Your task to perform on an android device: Open the phone app and click the voicemail tab. Image 0: 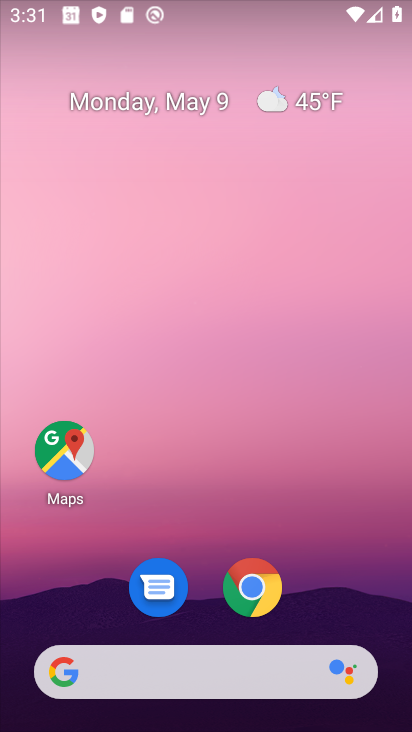
Step 0: drag from (393, 667) to (347, 187)
Your task to perform on an android device: Open the phone app and click the voicemail tab. Image 1: 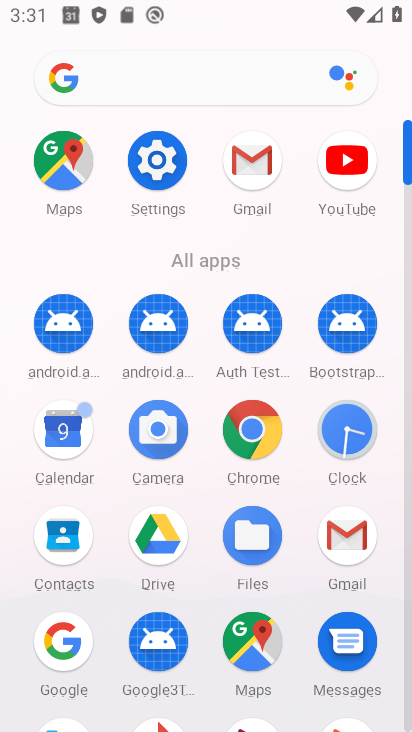
Step 1: drag from (409, 137) to (407, 75)
Your task to perform on an android device: Open the phone app and click the voicemail tab. Image 2: 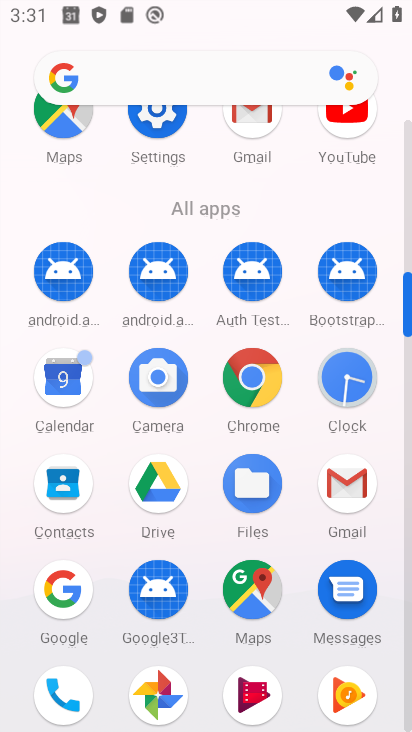
Step 2: click (68, 695)
Your task to perform on an android device: Open the phone app and click the voicemail tab. Image 3: 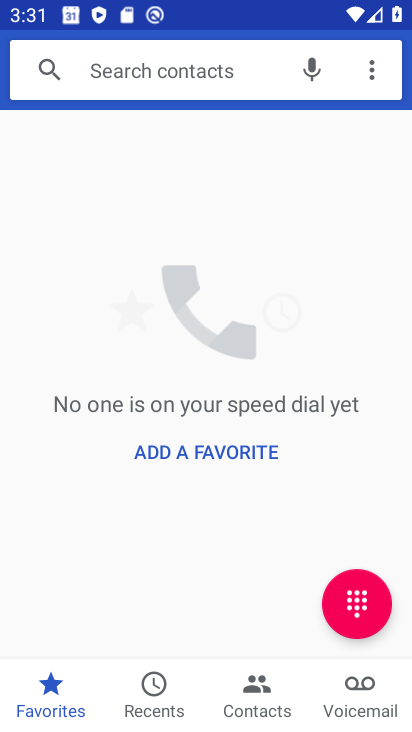
Step 3: click (369, 688)
Your task to perform on an android device: Open the phone app and click the voicemail tab. Image 4: 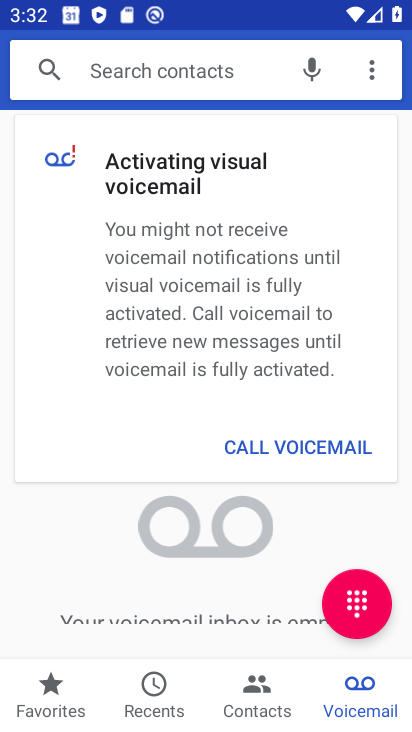
Step 4: task complete